Your task to perform on an android device: turn on the 24-hour format for clock Image 0: 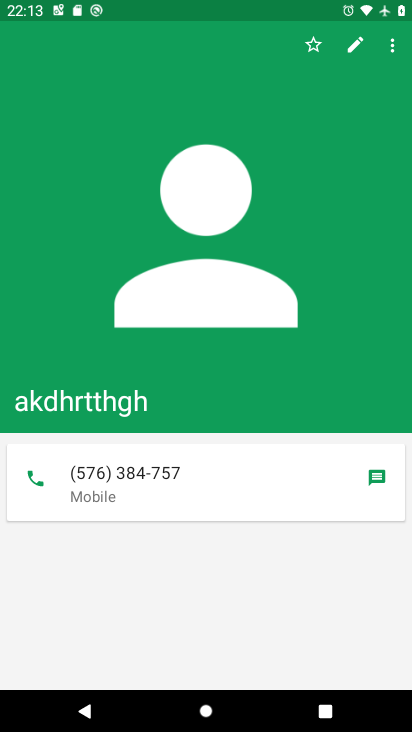
Step 0: press home button
Your task to perform on an android device: turn on the 24-hour format for clock Image 1: 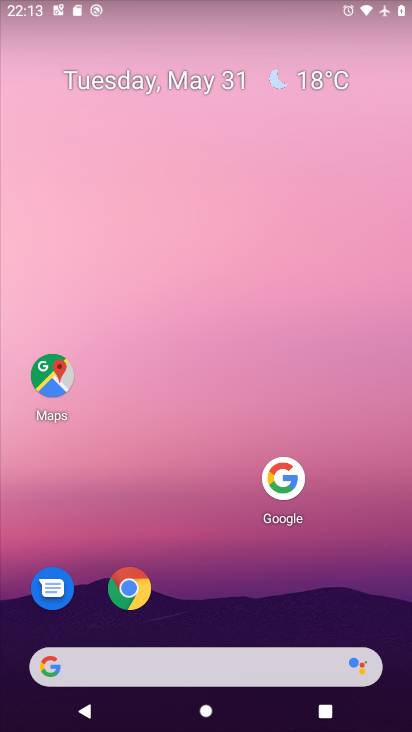
Step 1: drag from (180, 661) to (272, 118)
Your task to perform on an android device: turn on the 24-hour format for clock Image 2: 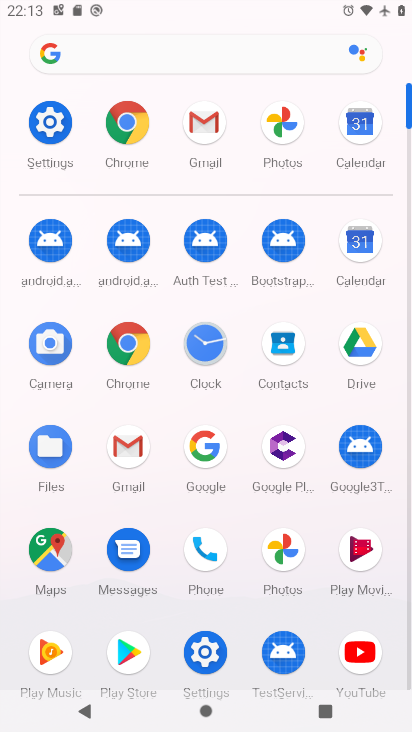
Step 2: click (204, 352)
Your task to perform on an android device: turn on the 24-hour format for clock Image 3: 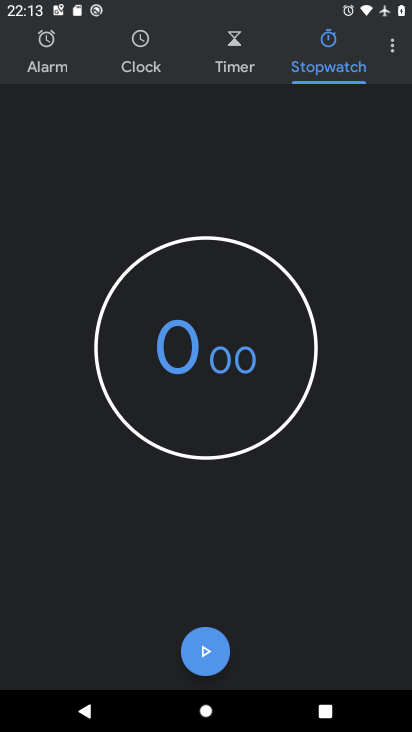
Step 3: click (393, 47)
Your task to perform on an android device: turn on the 24-hour format for clock Image 4: 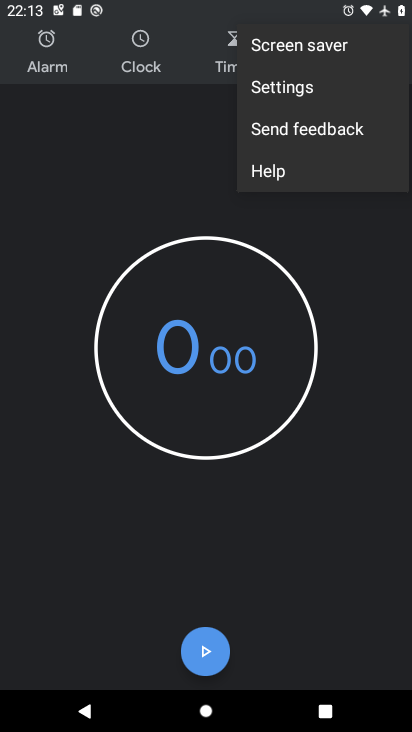
Step 4: click (306, 92)
Your task to perform on an android device: turn on the 24-hour format for clock Image 5: 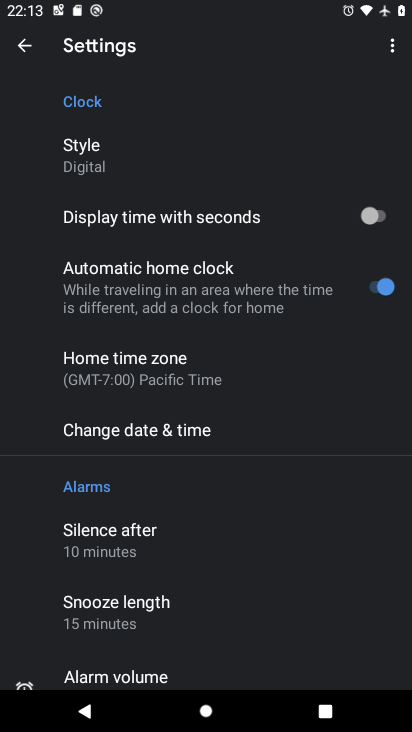
Step 5: click (131, 434)
Your task to perform on an android device: turn on the 24-hour format for clock Image 6: 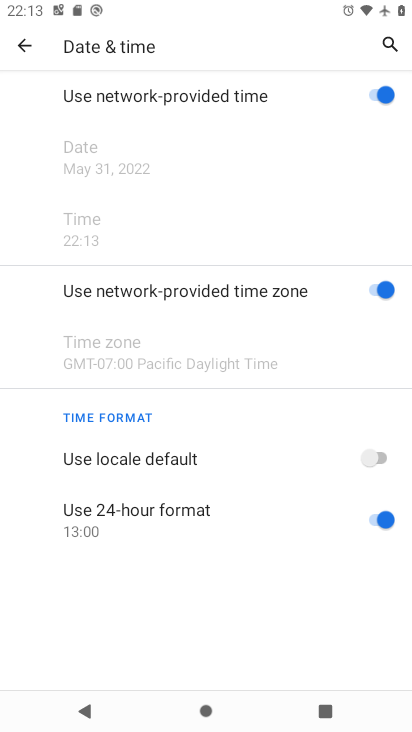
Step 6: task complete